Your task to perform on an android device: turn on wifi Image 0: 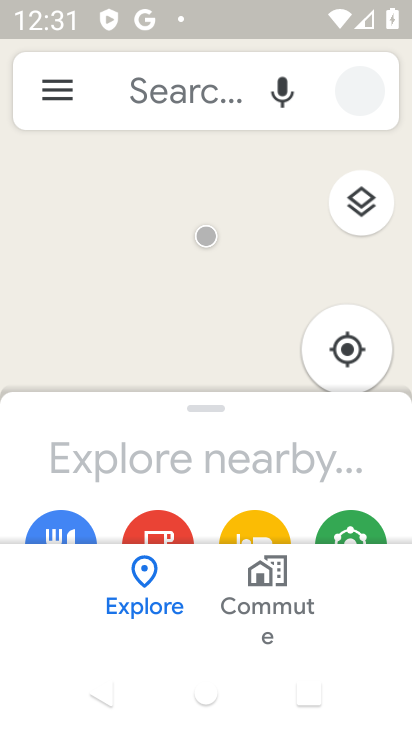
Step 0: click (251, 50)
Your task to perform on an android device: turn on wifi Image 1: 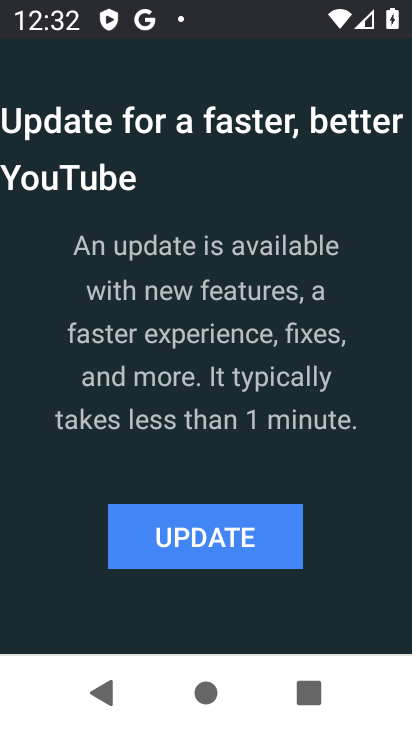
Step 1: press back button
Your task to perform on an android device: turn on wifi Image 2: 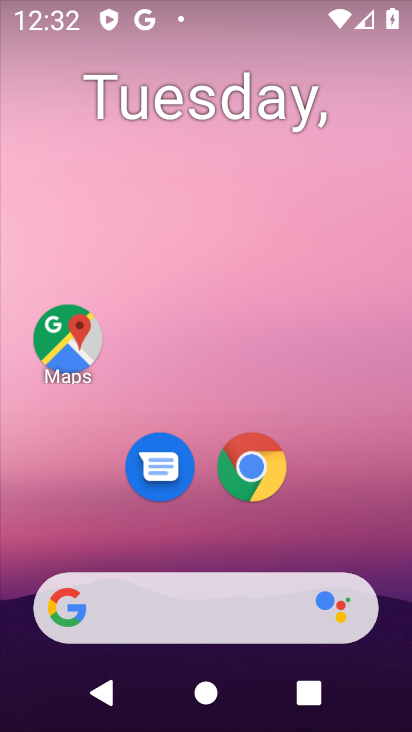
Step 2: drag from (384, 507) to (208, 0)
Your task to perform on an android device: turn on wifi Image 3: 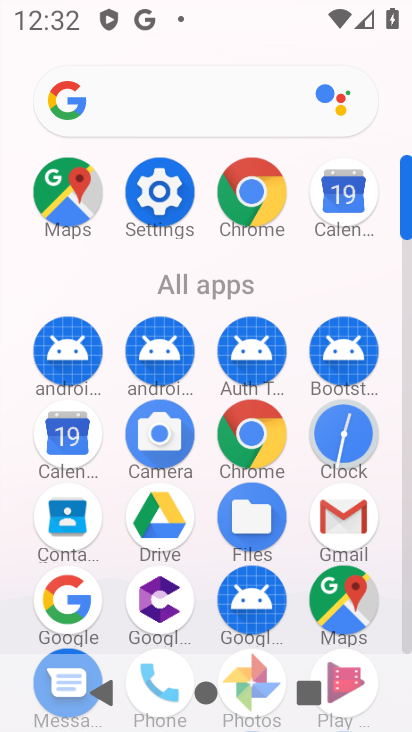
Step 3: click (159, 188)
Your task to perform on an android device: turn on wifi Image 4: 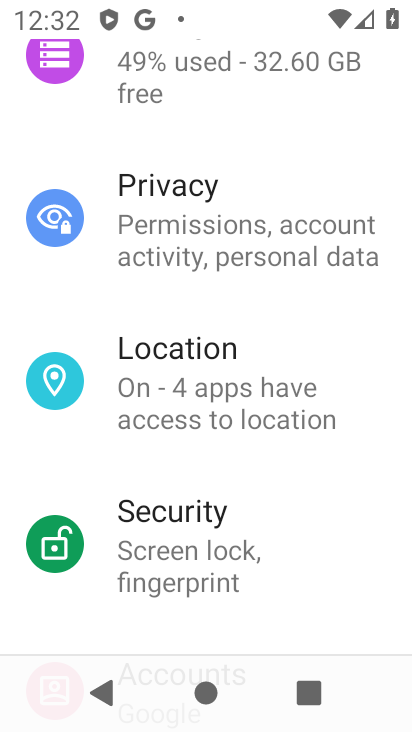
Step 4: drag from (309, 151) to (289, 482)
Your task to perform on an android device: turn on wifi Image 5: 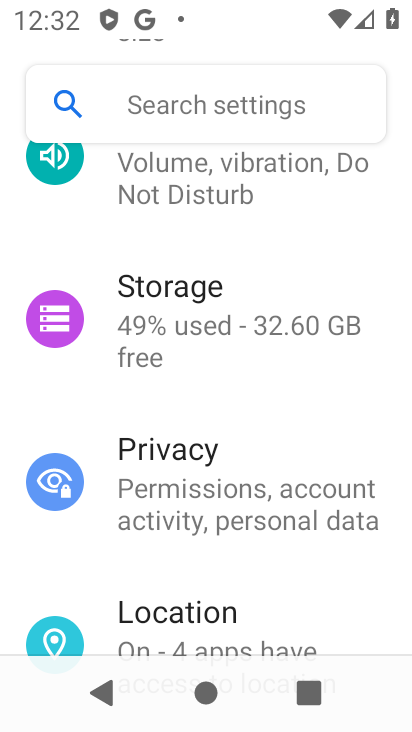
Step 5: drag from (305, 308) to (323, 526)
Your task to perform on an android device: turn on wifi Image 6: 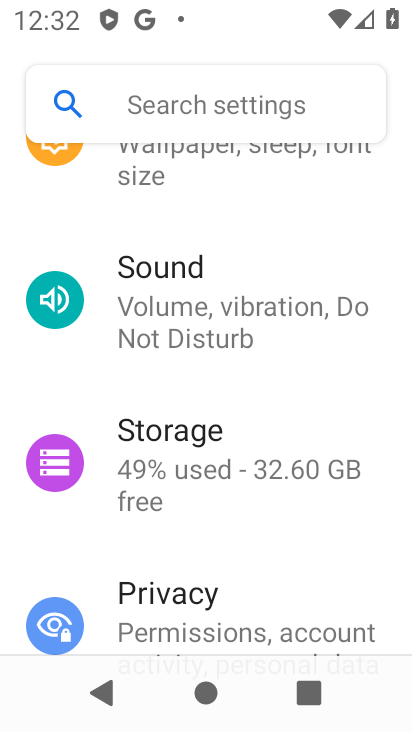
Step 6: drag from (317, 278) to (296, 431)
Your task to perform on an android device: turn on wifi Image 7: 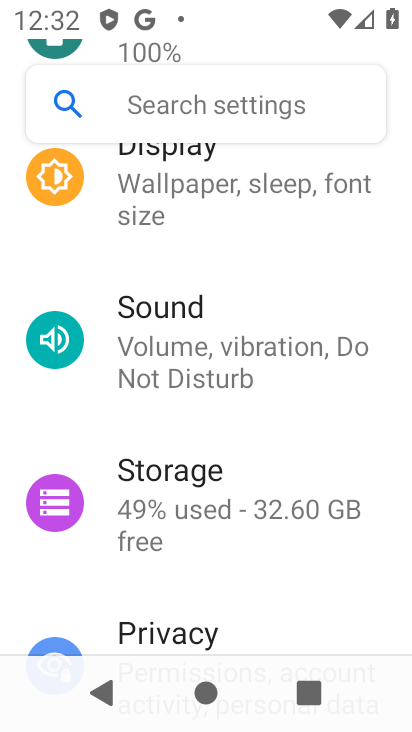
Step 7: drag from (295, 230) to (275, 597)
Your task to perform on an android device: turn on wifi Image 8: 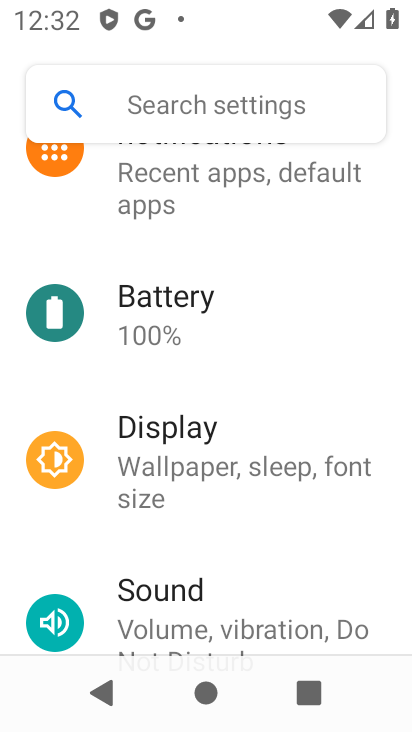
Step 8: drag from (285, 236) to (267, 550)
Your task to perform on an android device: turn on wifi Image 9: 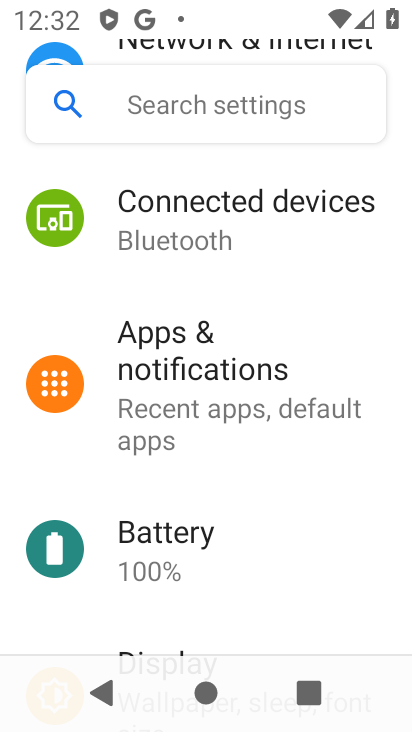
Step 9: drag from (294, 317) to (284, 547)
Your task to perform on an android device: turn on wifi Image 10: 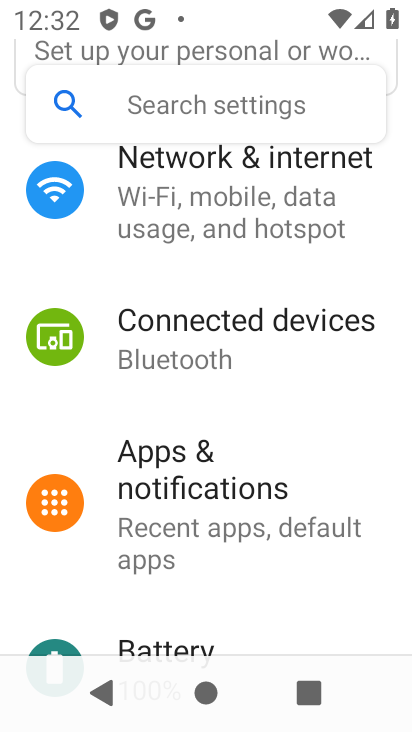
Step 10: drag from (292, 222) to (287, 457)
Your task to perform on an android device: turn on wifi Image 11: 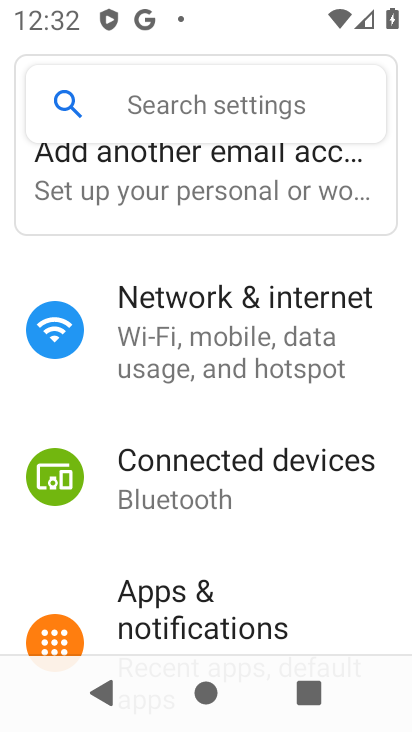
Step 11: click (265, 332)
Your task to perform on an android device: turn on wifi Image 12: 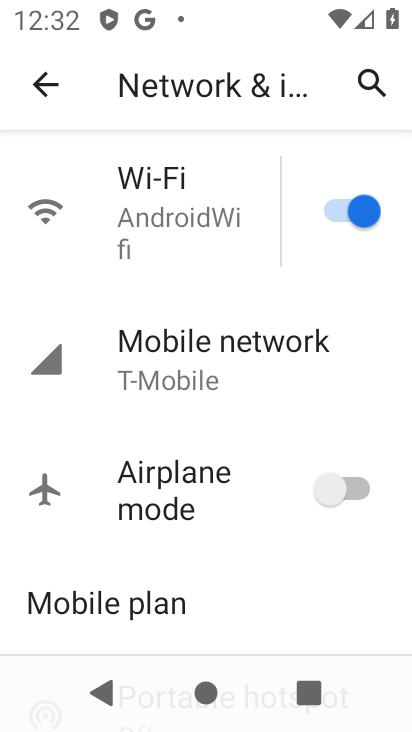
Step 12: task complete